Your task to perform on an android device: Go to Amazon Image 0: 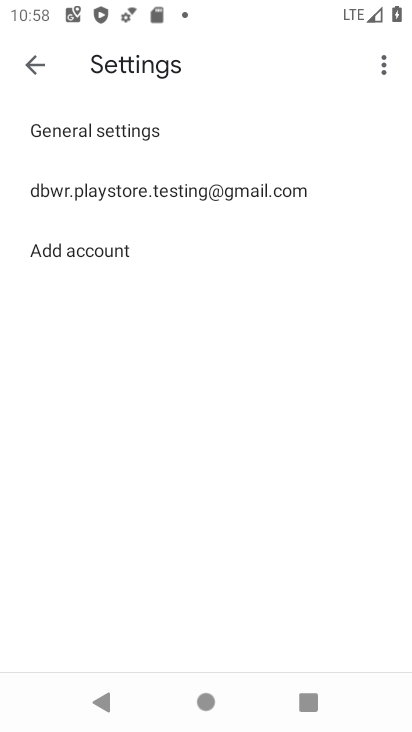
Step 0: press home button
Your task to perform on an android device: Go to Amazon Image 1: 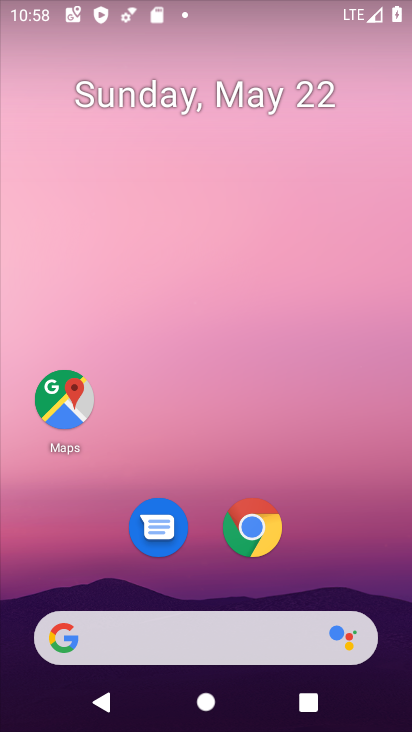
Step 1: click (255, 529)
Your task to perform on an android device: Go to Amazon Image 2: 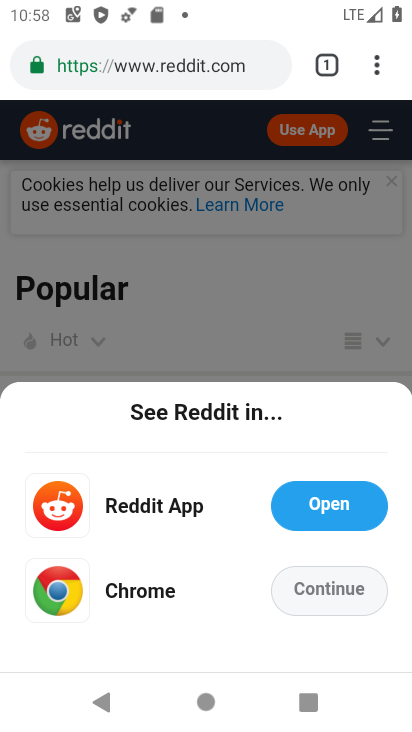
Step 2: click (335, 578)
Your task to perform on an android device: Go to Amazon Image 3: 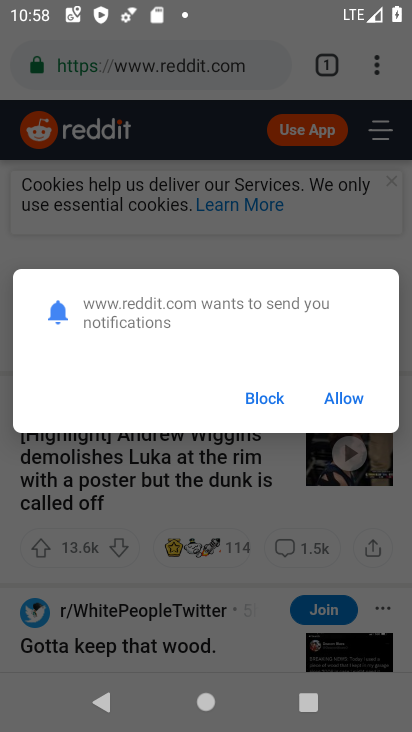
Step 3: click (341, 414)
Your task to perform on an android device: Go to Amazon Image 4: 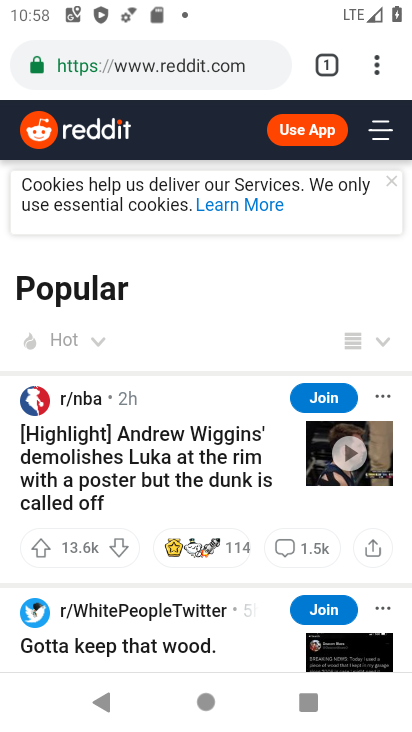
Step 4: click (218, 70)
Your task to perform on an android device: Go to Amazon Image 5: 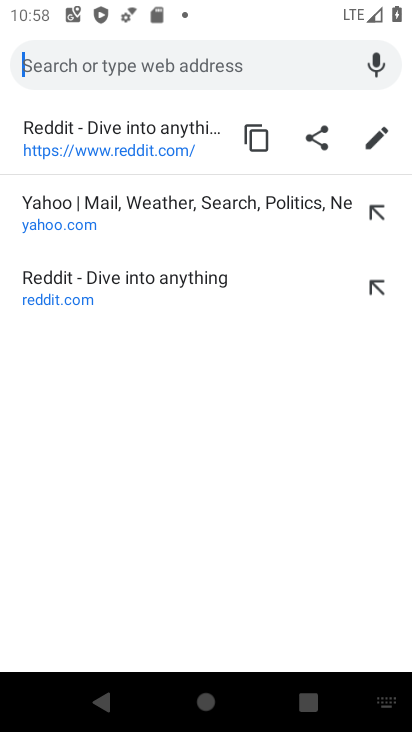
Step 5: type "amazon"
Your task to perform on an android device: Go to Amazon Image 6: 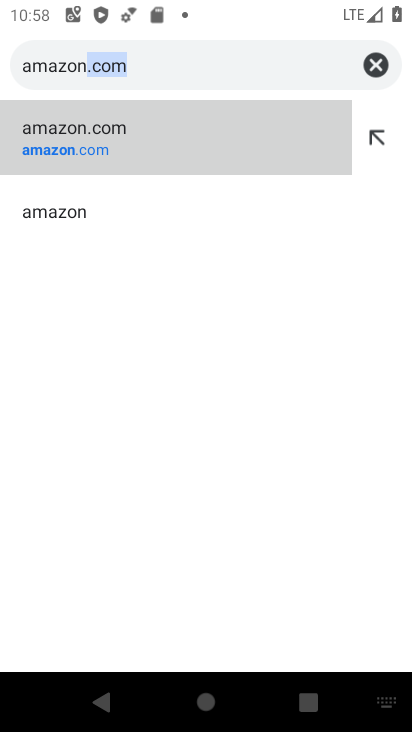
Step 6: click (71, 119)
Your task to perform on an android device: Go to Amazon Image 7: 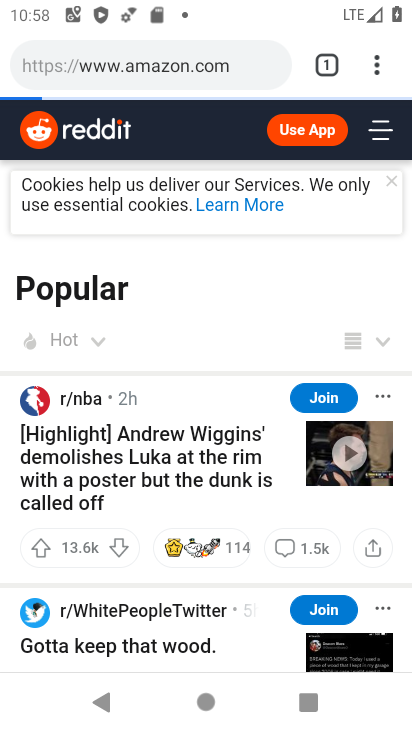
Step 7: task complete